Your task to perform on an android device: empty trash in the gmail app Image 0: 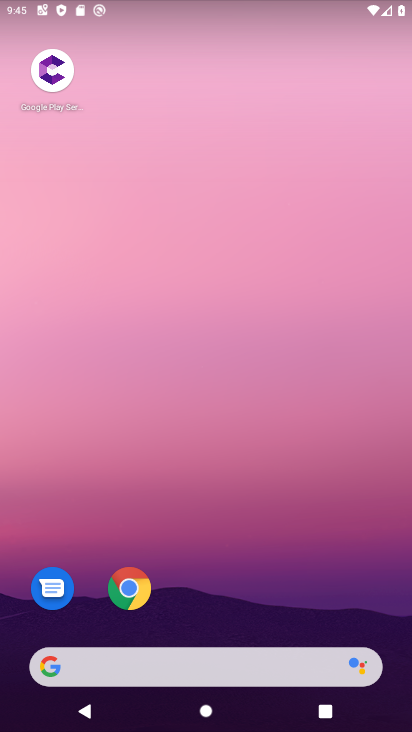
Step 0: drag from (289, 554) to (276, 127)
Your task to perform on an android device: empty trash in the gmail app Image 1: 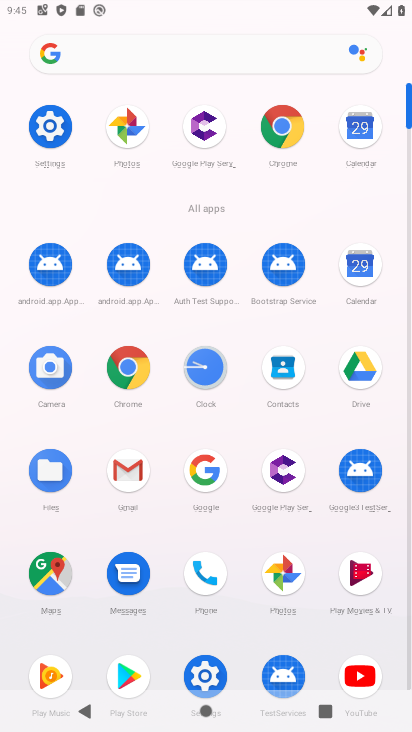
Step 1: click (112, 484)
Your task to perform on an android device: empty trash in the gmail app Image 2: 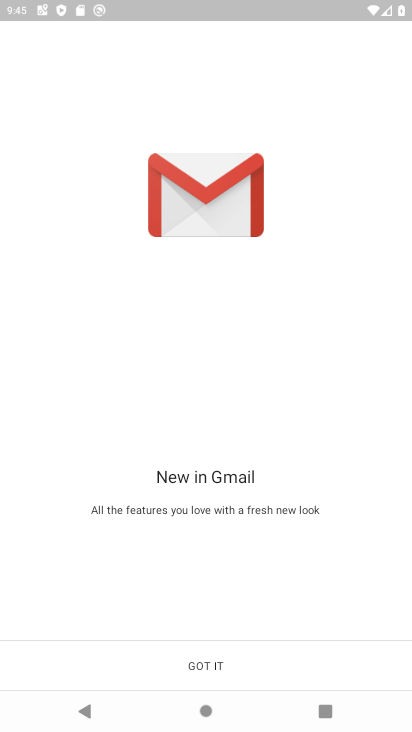
Step 2: click (227, 662)
Your task to perform on an android device: empty trash in the gmail app Image 3: 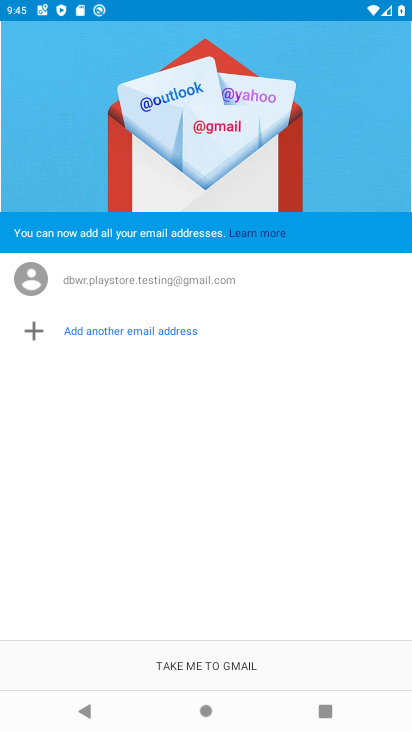
Step 3: click (232, 670)
Your task to perform on an android device: empty trash in the gmail app Image 4: 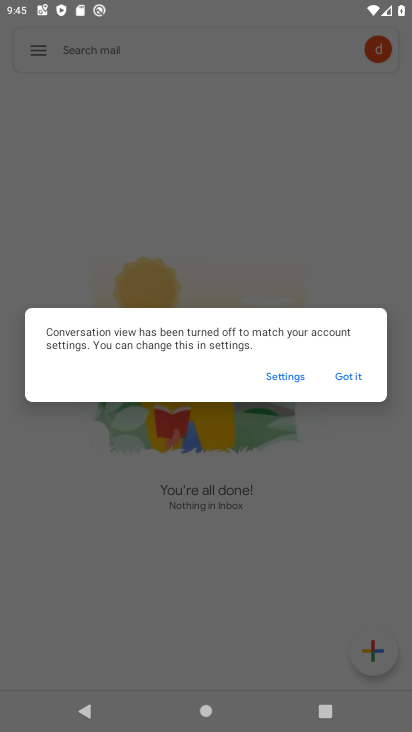
Step 4: click (335, 377)
Your task to perform on an android device: empty trash in the gmail app Image 5: 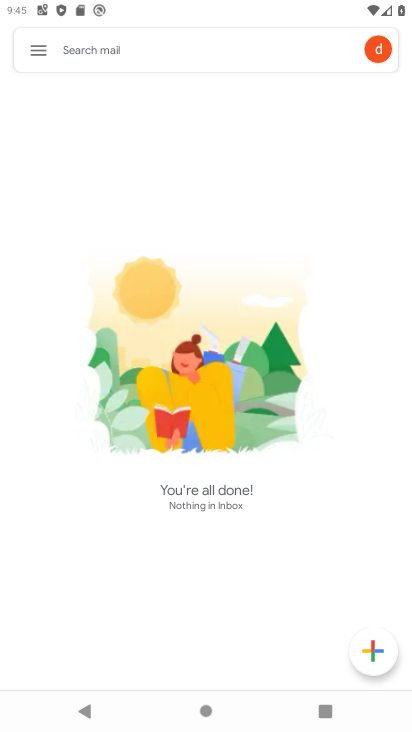
Step 5: click (49, 51)
Your task to perform on an android device: empty trash in the gmail app Image 6: 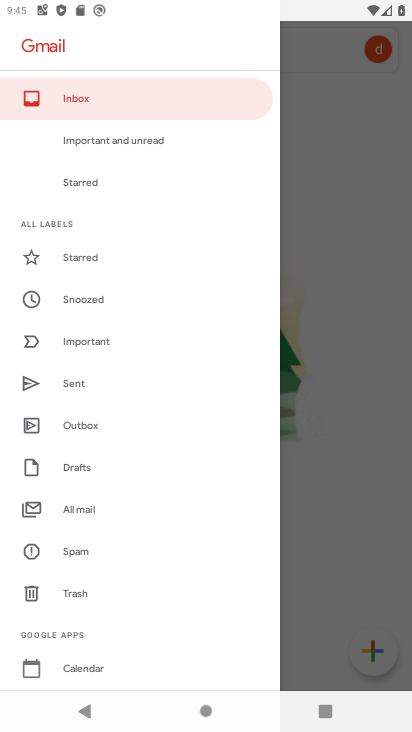
Step 6: click (95, 589)
Your task to perform on an android device: empty trash in the gmail app Image 7: 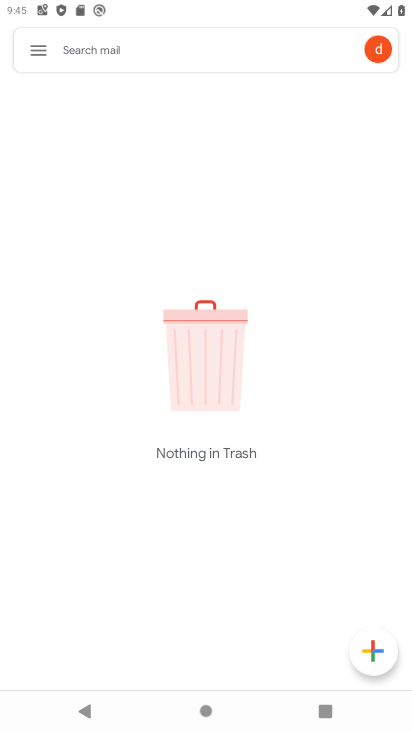
Step 7: task complete